Your task to perform on an android device: turn smart compose on in the gmail app Image 0: 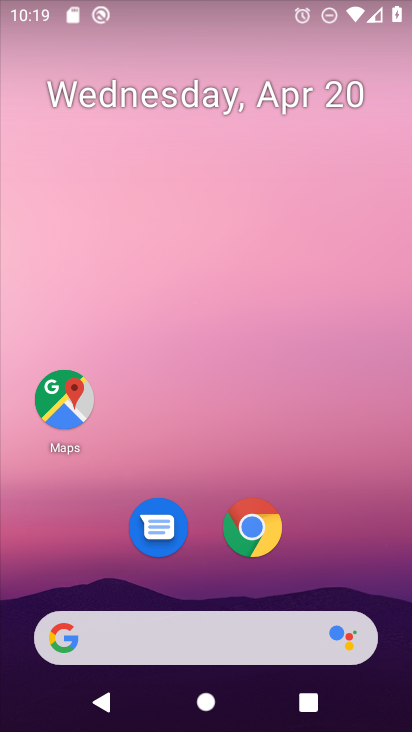
Step 0: drag from (188, 558) to (350, 35)
Your task to perform on an android device: turn smart compose on in the gmail app Image 1: 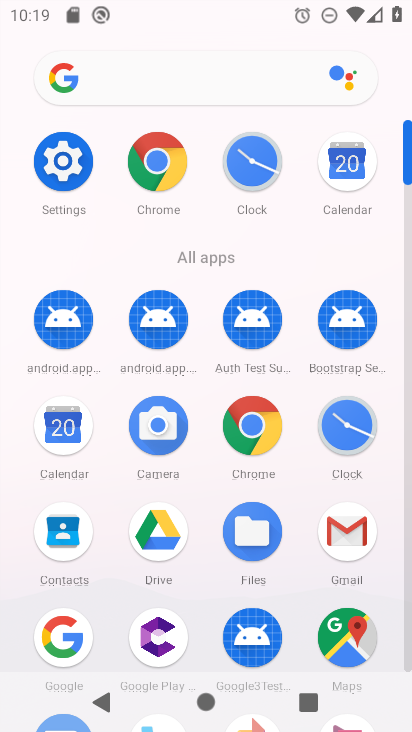
Step 1: click (345, 543)
Your task to perform on an android device: turn smart compose on in the gmail app Image 2: 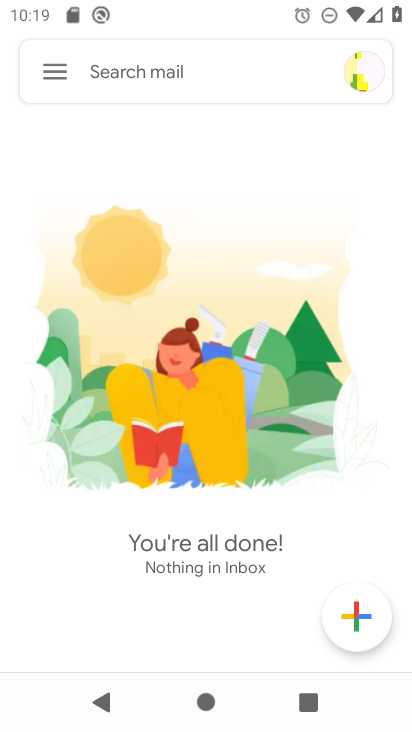
Step 2: click (51, 66)
Your task to perform on an android device: turn smart compose on in the gmail app Image 3: 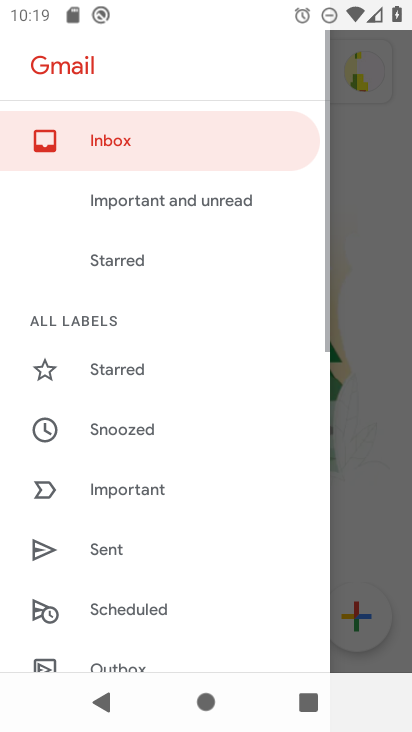
Step 3: drag from (102, 590) to (167, 251)
Your task to perform on an android device: turn smart compose on in the gmail app Image 4: 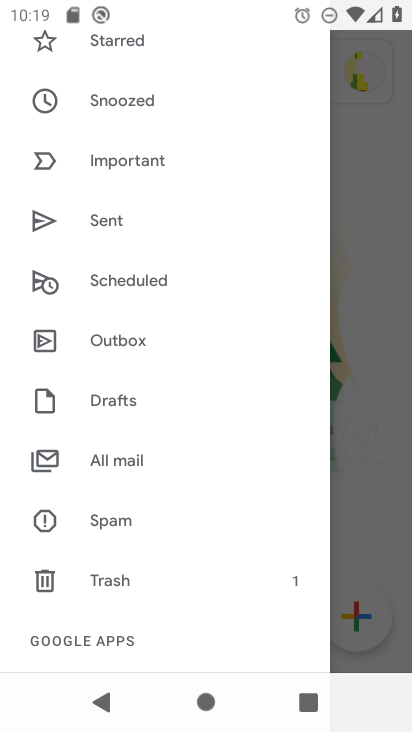
Step 4: drag from (93, 650) to (160, 262)
Your task to perform on an android device: turn smart compose on in the gmail app Image 5: 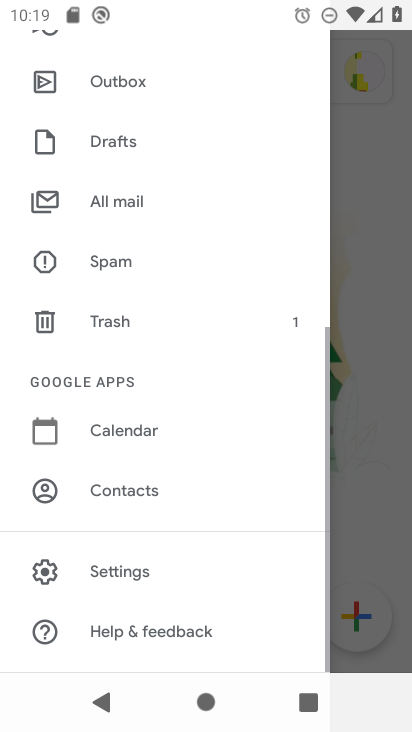
Step 5: click (120, 576)
Your task to perform on an android device: turn smart compose on in the gmail app Image 6: 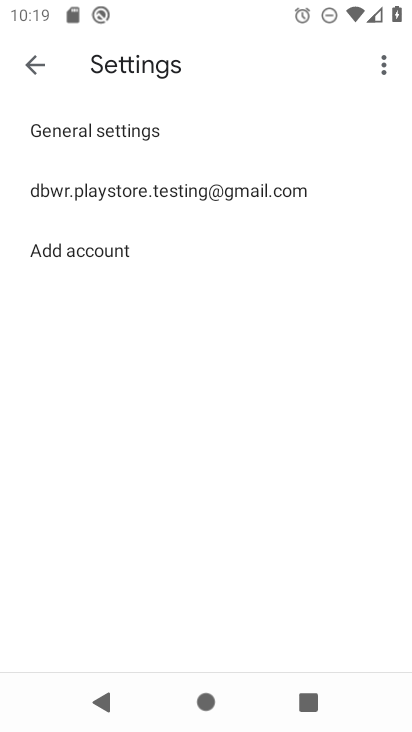
Step 6: click (106, 202)
Your task to perform on an android device: turn smart compose on in the gmail app Image 7: 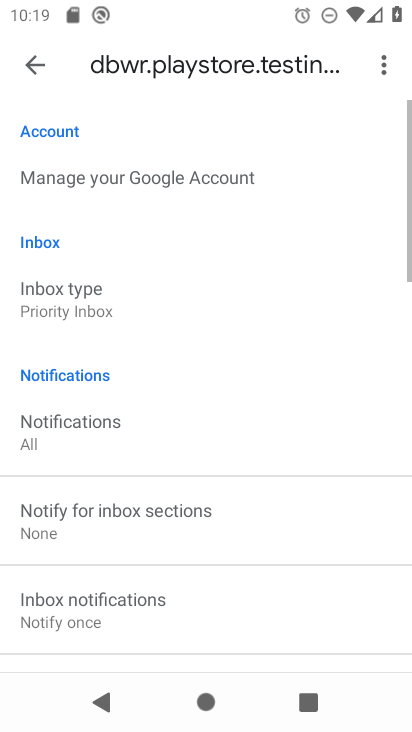
Step 7: task complete